Your task to perform on an android device: turn off sleep mode Image 0: 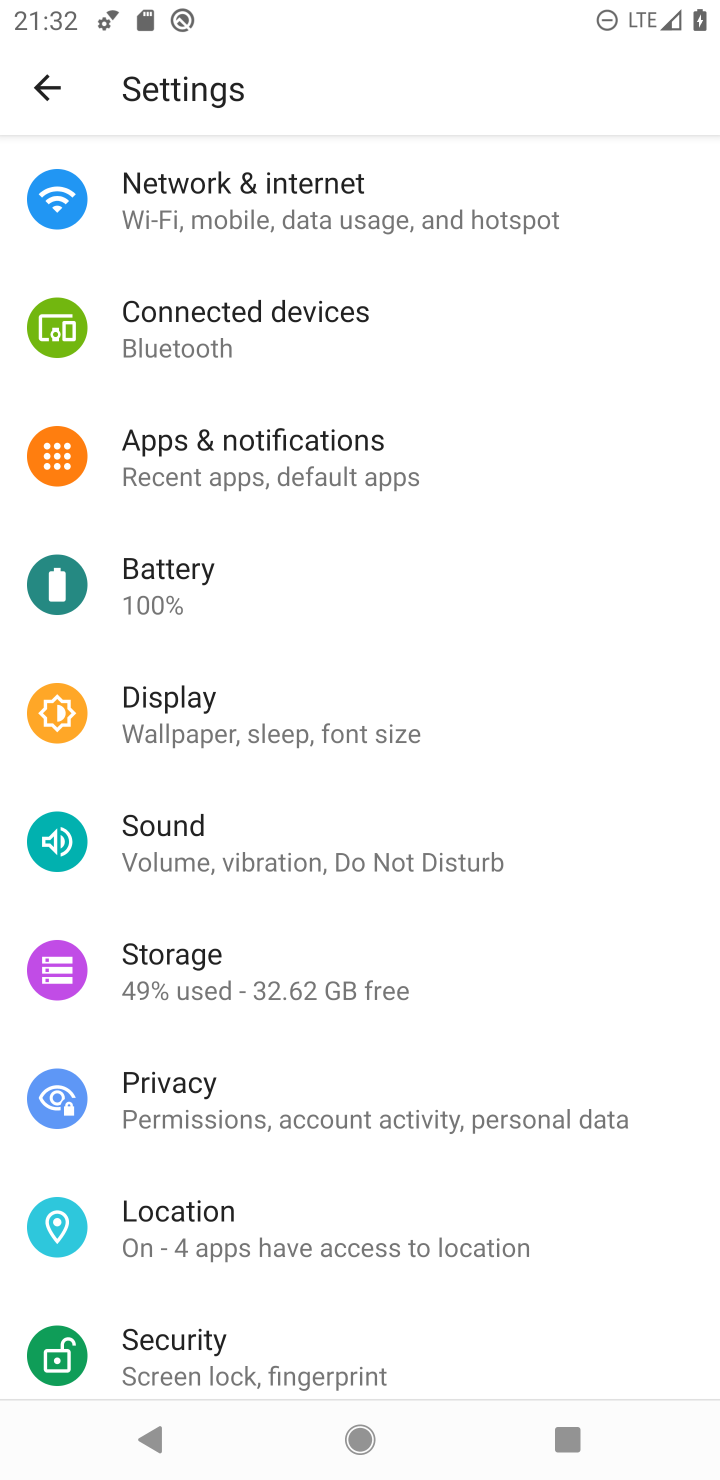
Step 0: drag from (265, 278) to (253, 1030)
Your task to perform on an android device: turn off sleep mode Image 1: 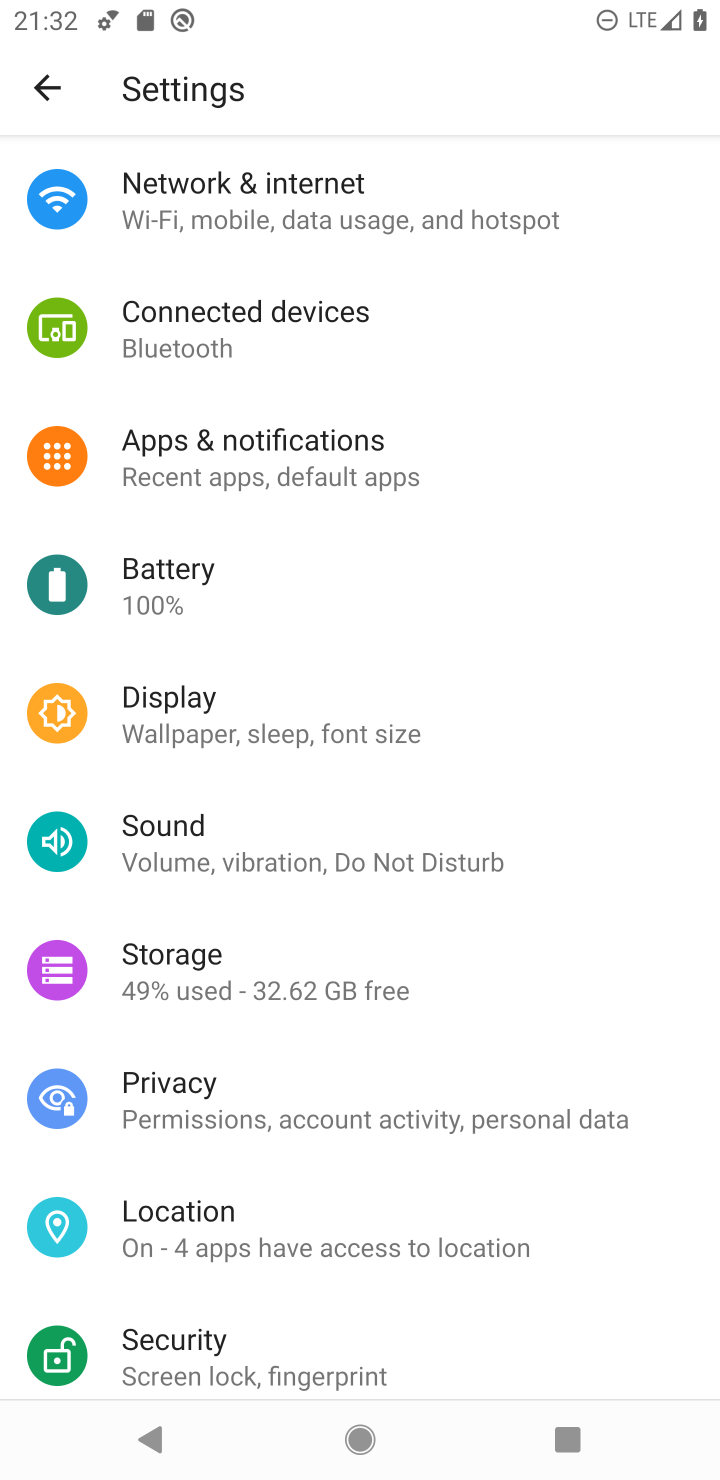
Step 1: click (222, 732)
Your task to perform on an android device: turn off sleep mode Image 2: 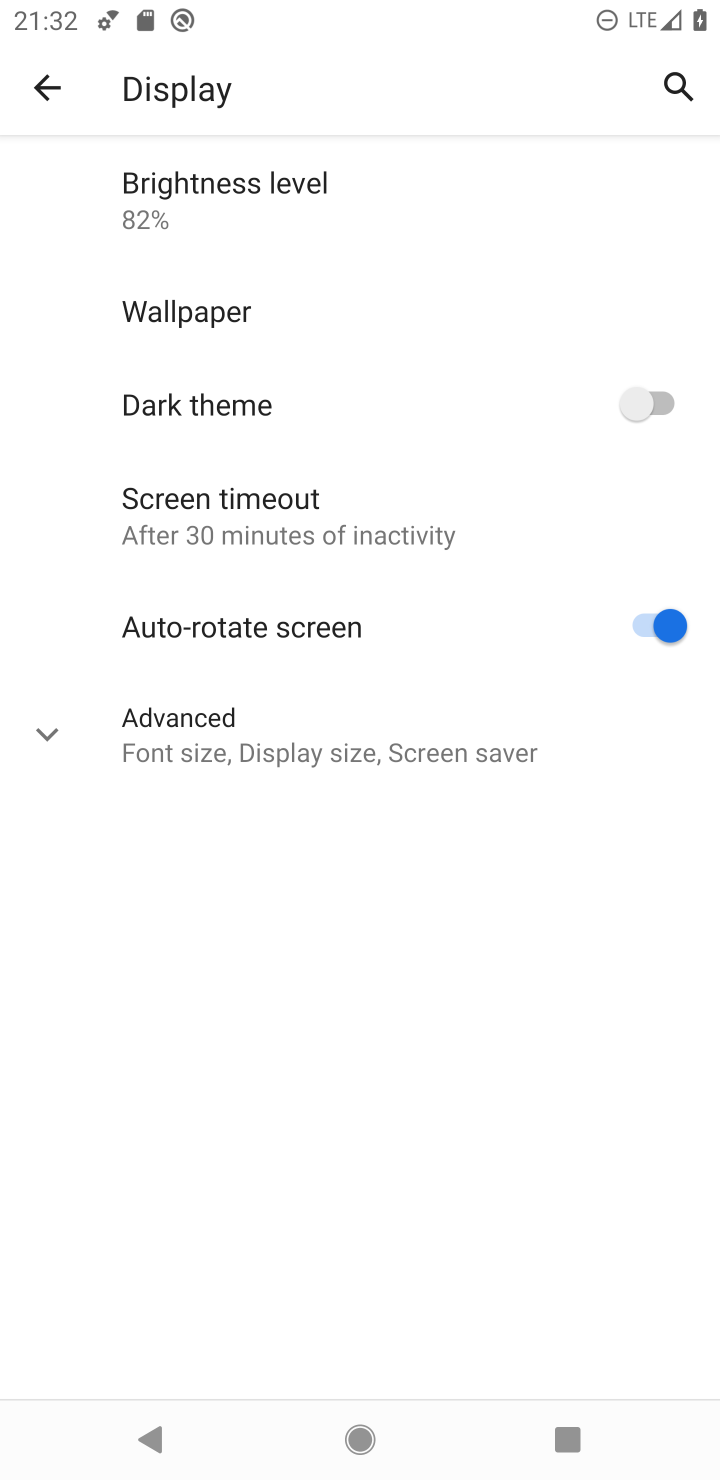
Step 2: task complete